Your task to perform on an android device: visit the assistant section in the google photos Image 0: 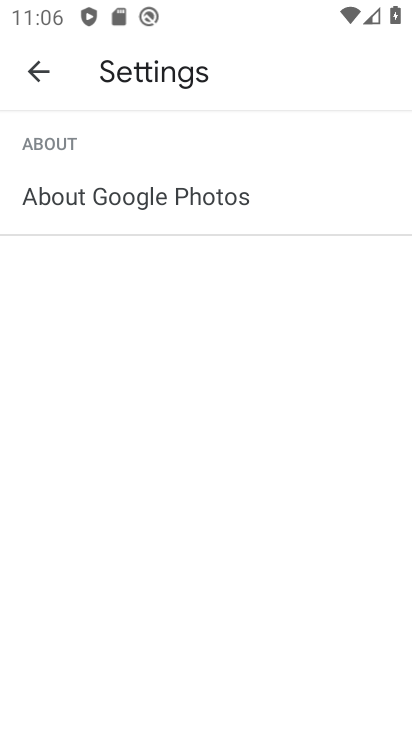
Step 0: task complete